Your task to perform on an android device: Search for sushi restaurants on Maps Image 0: 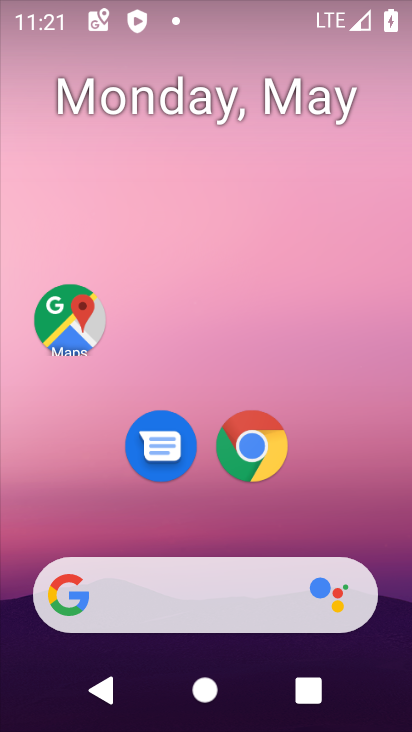
Step 0: drag from (370, 311) to (370, 1)
Your task to perform on an android device: Search for sushi restaurants on Maps Image 1: 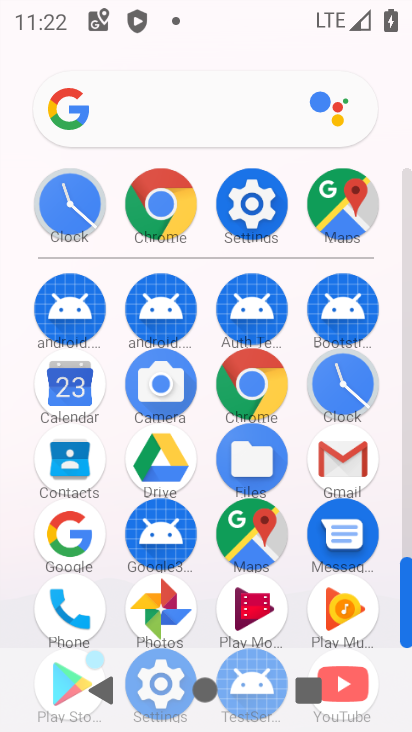
Step 1: click (335, 215)
Your task to perform on an android device: Search for sushi restaurants on Maps Image 2: 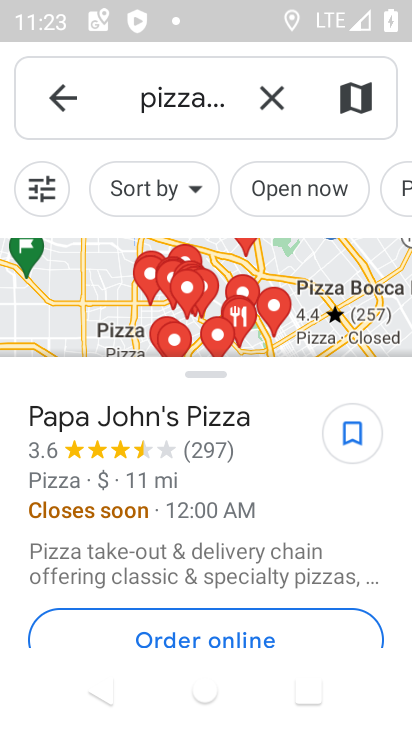
Step 2: click (293, 89)
Your task to perform on an android device: Search for sushi restaurants on Maps Image 3: 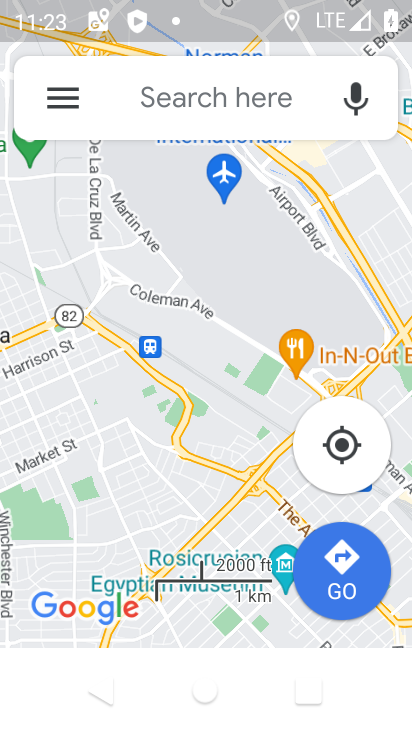
Step 3: click (256, 102)
Your task to perform on an android device: Search for sushi restaurants on Maps Image 4: 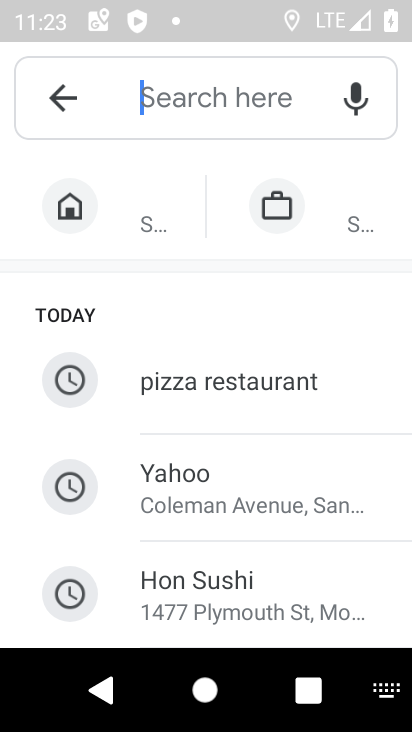
Step 4: type "sushi"
Your task to perform on an android device: Search for sushi restaurants on Maps Image 5: 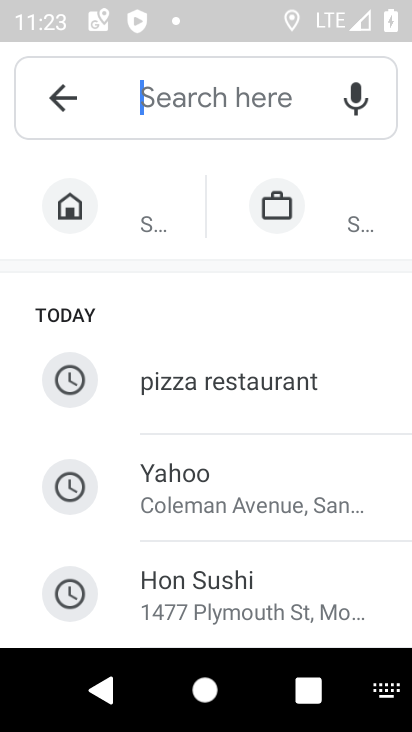
Step 5: click (276, 250)
Your task to perform on an android device: Search for sushi restaurants on Maps Image 6: 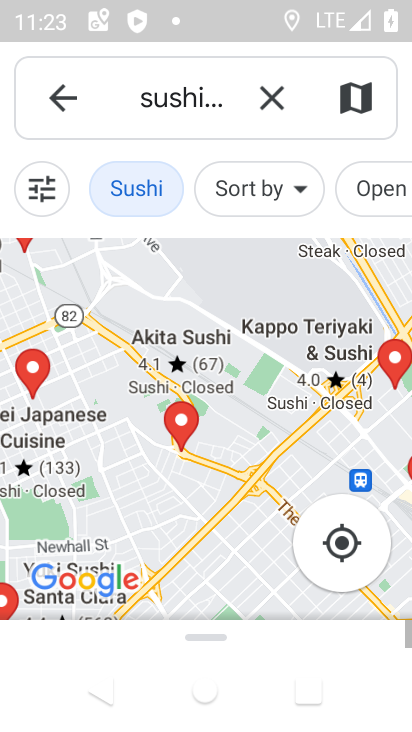
Step 6: task complete